Your task to perform on an android device: change the clock style Image 0: 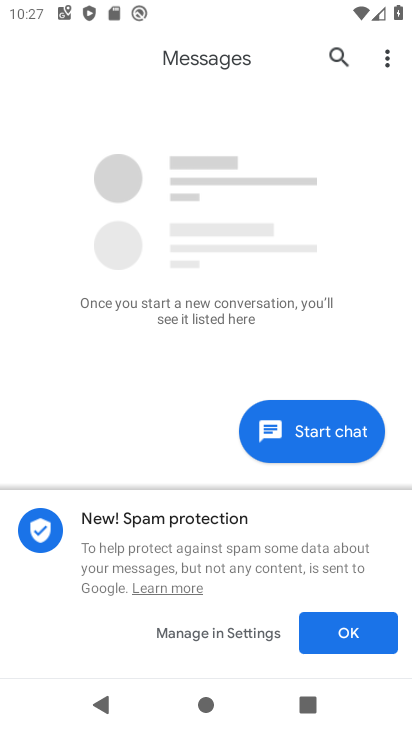
Step 0: press home button
Your task to perform on an android device: change the clock style Image 1: 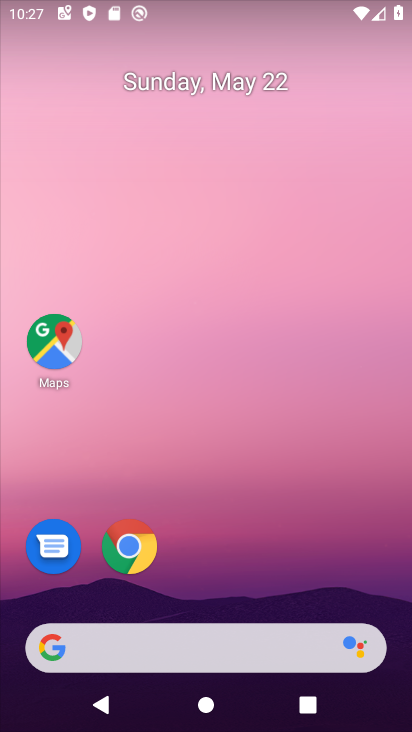
Step 1: drag from (181, 591) to (190, 5)
Your task to perform on an android device: change the clock style Image 2: 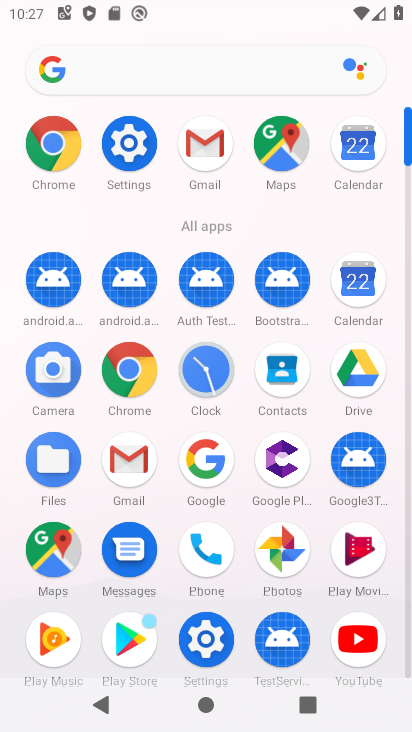
Step 2: click (209, 373)
Your task to perform on an android device: change the clock style Image 3: 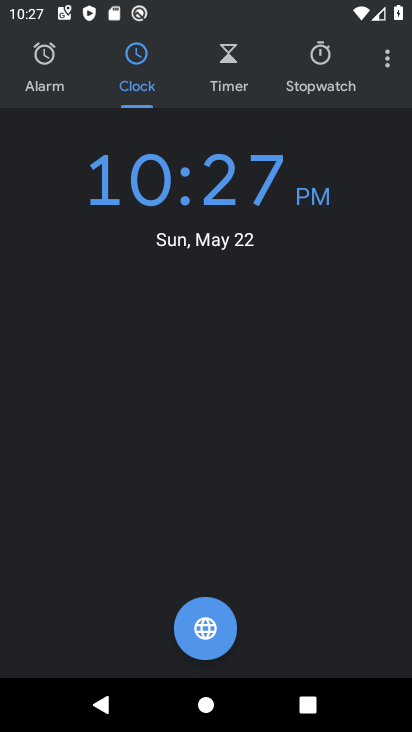
Step 3: click (382, 71)
Your task to perform on an android device: change the clock style Image 4: 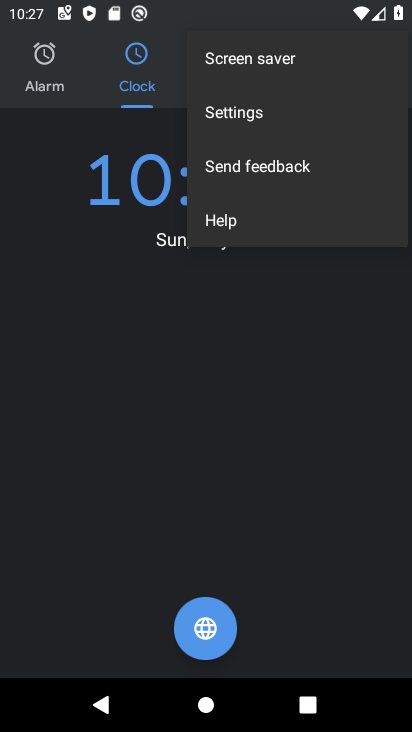
Step 4: click (257, 115)
Your task to perform on an android device: change the clock style Image 5: 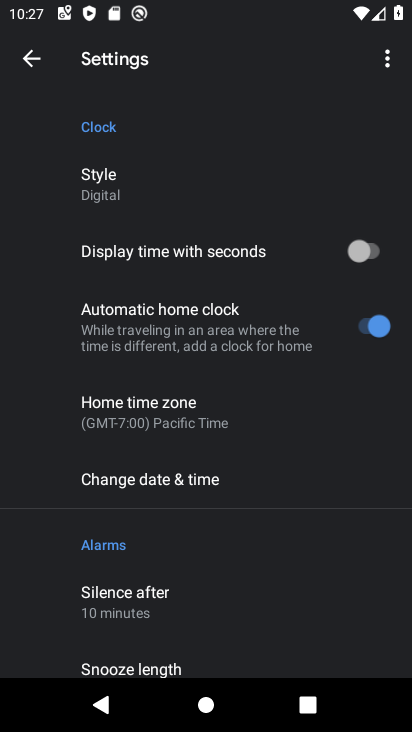
Step 5: click (113, 181)
Your task to perform on an android device: change the clock style Image 6: 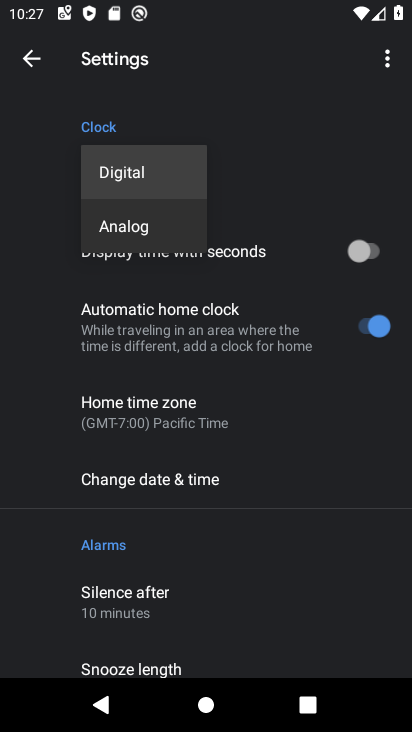
Step 6: click (138, 229)
Your task to perform on an android device: change the clock style Image 7: 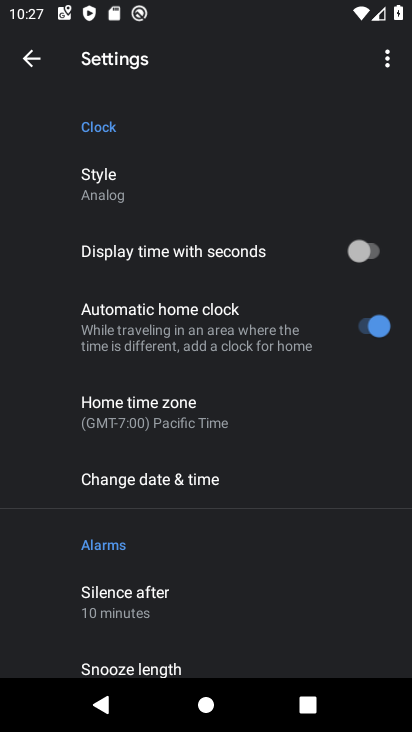
Step 7: task complete